Your task to perform on an android device: all mails in gmail Image 0: 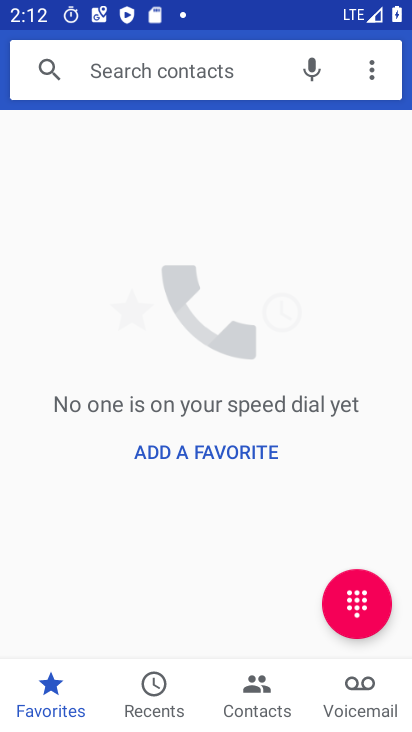
Step 0: press home button
Your task to perform on an android device: all mails in gmail Image 1: 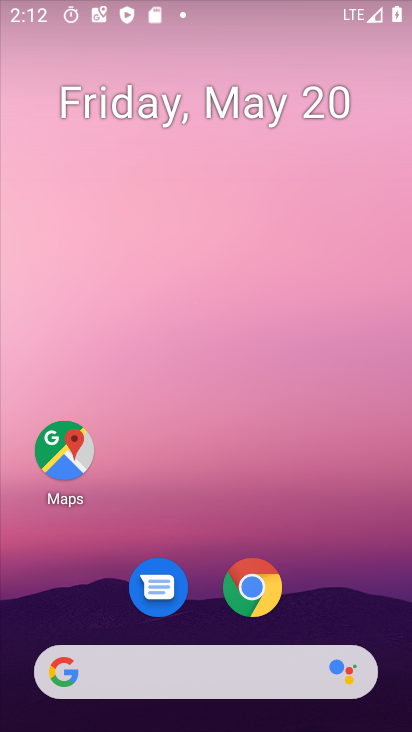
Step 1: drag from (300, 551) to (266, 99)
Your task to perform on an android device: all mails in gmail Image 2: 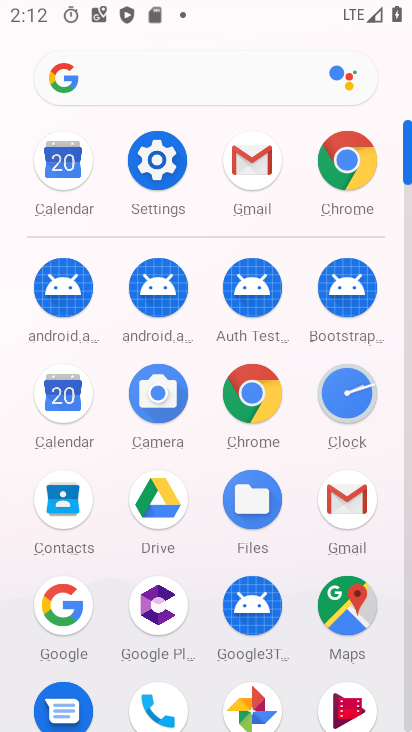
Step 2: click (262, 162)
Your task to perform on an android device: all mails in gmail Image 3: 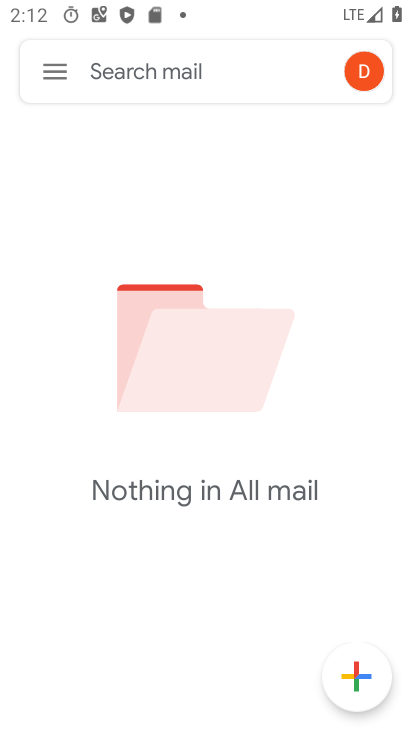
Step 3: click (43, 63)
Your task to perform on an android device: all mails in gmail Image 4: 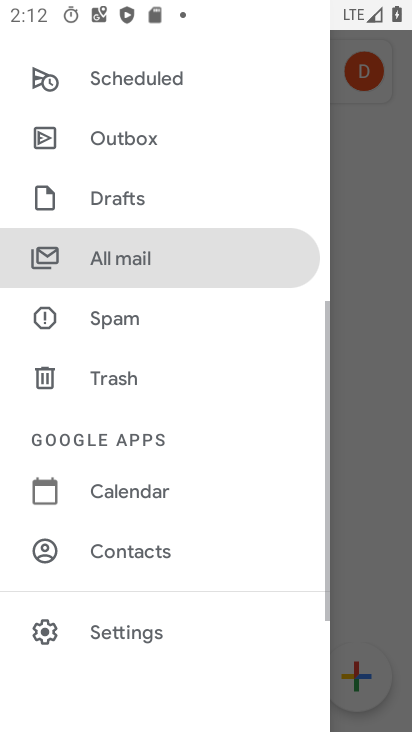
Step 4: click (138, 263)
Your task to perform on an android device: all mails in gmail Image 5: 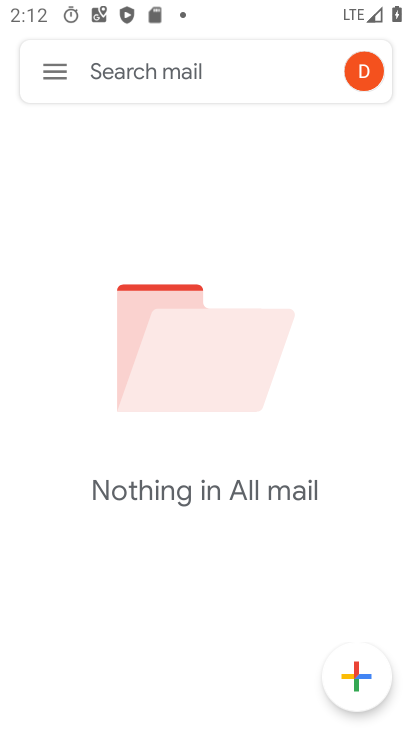
Step 5: task complete